Your task to perform on an android device: Open Chrome and go to the settings page Image 0: 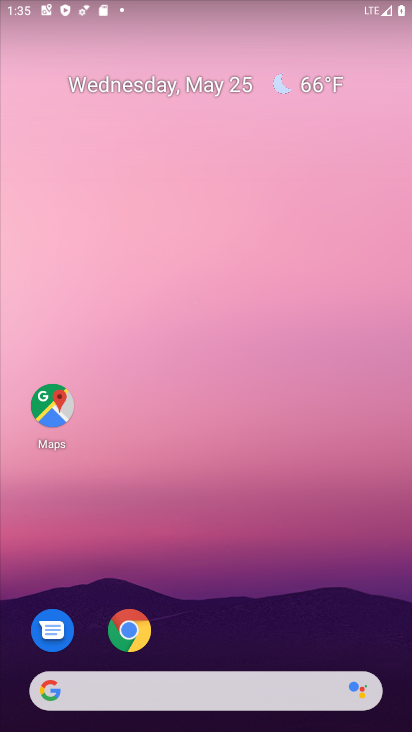
Step 0: click (130, 629)
Your task to perform on an android device: Open Chrome and go to the settings page Image 1: 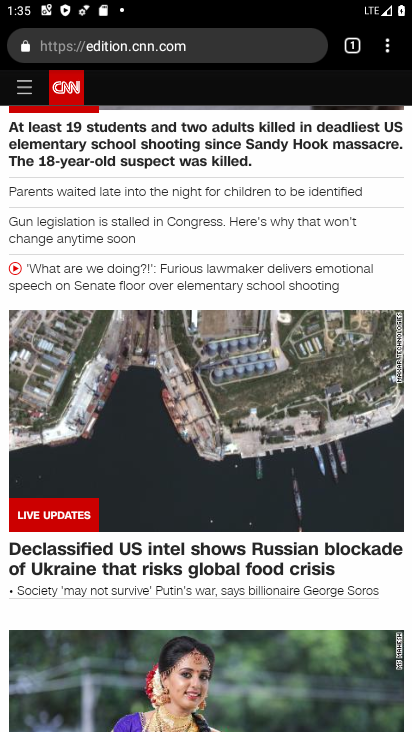
Step 1: press home button
Your task to perform on an android device: Open Chrome and go to the settings page Image 2: 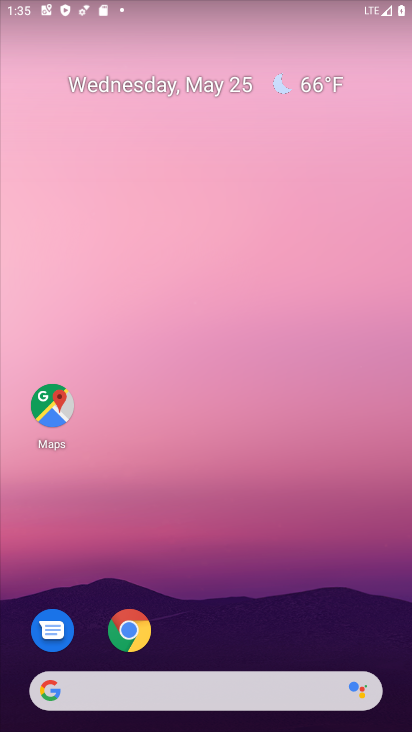
Step 2: click (129, 626)
Your task to perform on an android device: Open Chrome and go to the settings page Image 3: 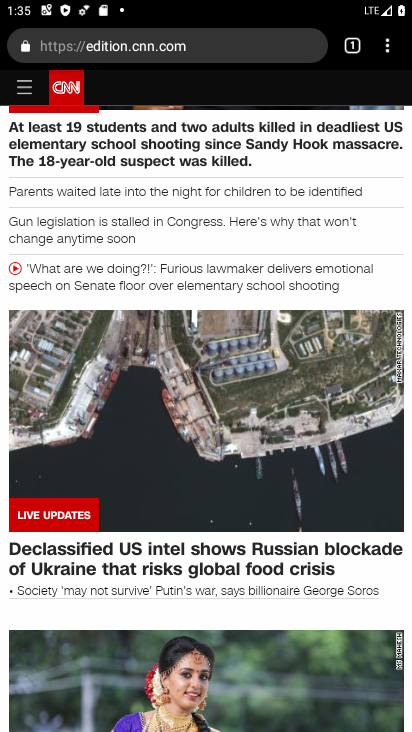
Step 3: click (389, 42)
Your task to perform on an android device: Open Chrome and go to the settings page Image 4: 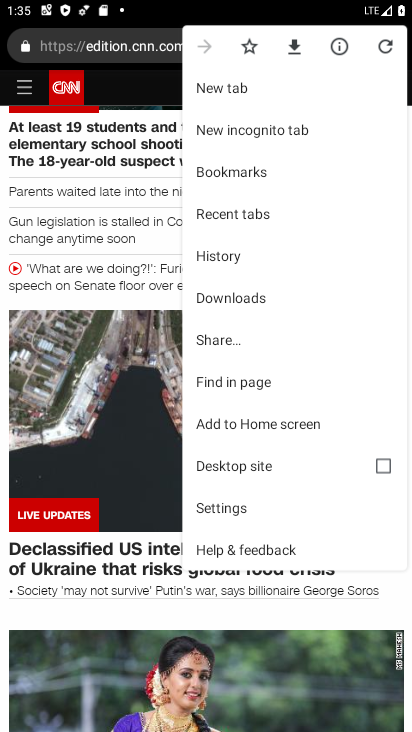
Step 4: click (254, 506)
Your task to perform on an android device: Open Chrome and go to the settings page Image 5: 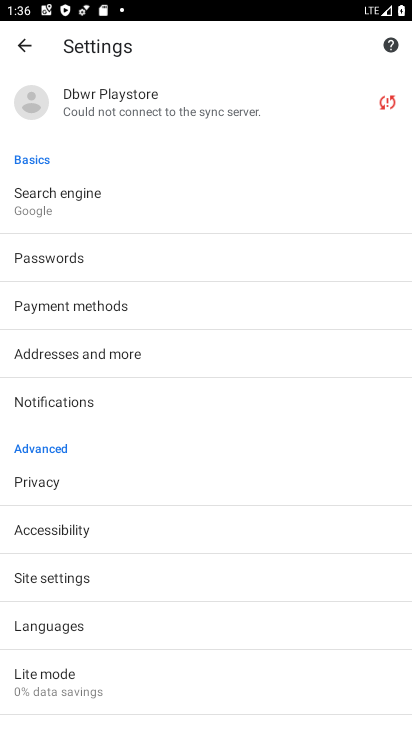
Step 5: task complete